Your task to perform on an android device: turn off data saver in the chrome app Image 0: 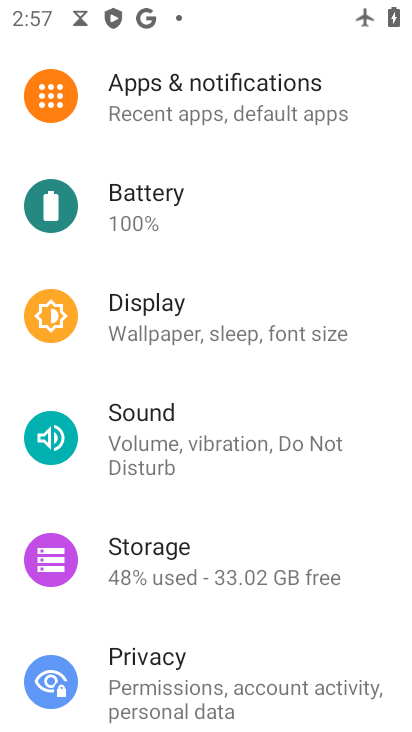
Step 0: press home button
Your task to perform on an android device: turn off data saver in the chrome app Image 1: 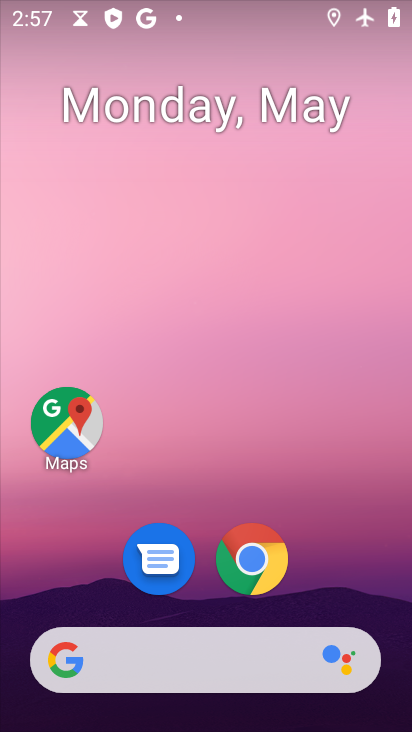
Step 1: click (247, 569)
Your task to perform on an android device: turn off data saver in the chrome app Image 2: 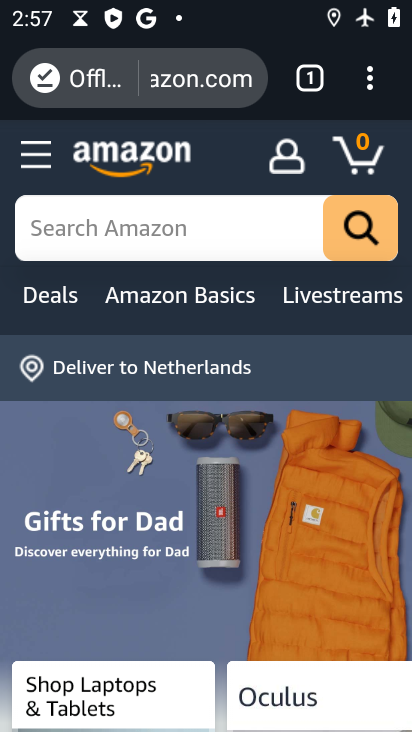
Step 2: click (382, 71)
Your task to perform on an android device: turn off data saver in the chrome app Image 3: 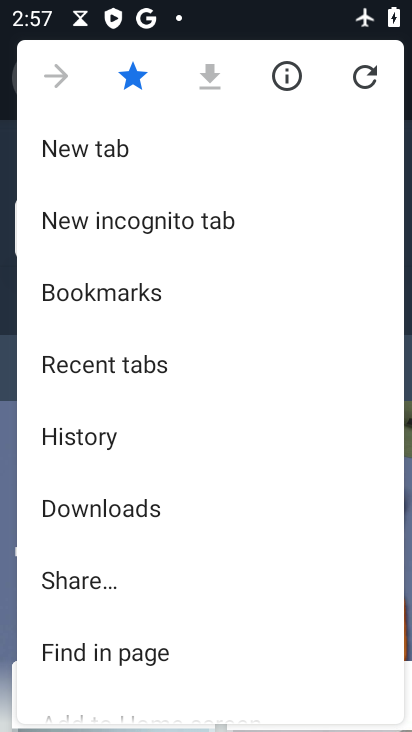
Step 3: drag from (185, 617) to (211, 172)
Your task to perform on an android device: turn off data saver in the chrome app Image 4: 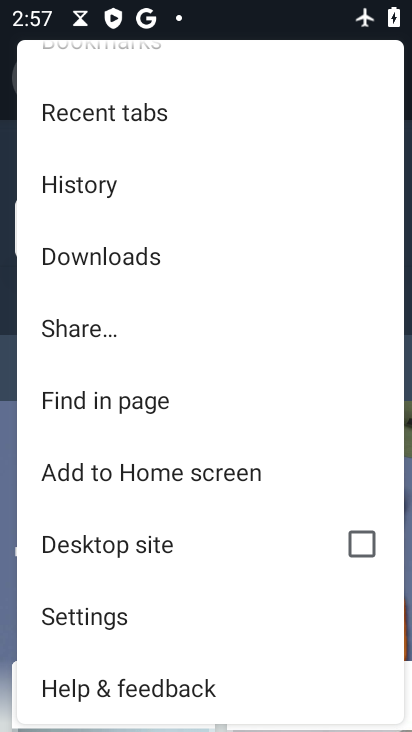
Step 4: click (116, 611)
Your task to perform on an android device: turn off data saver in the chrome app Image 5: 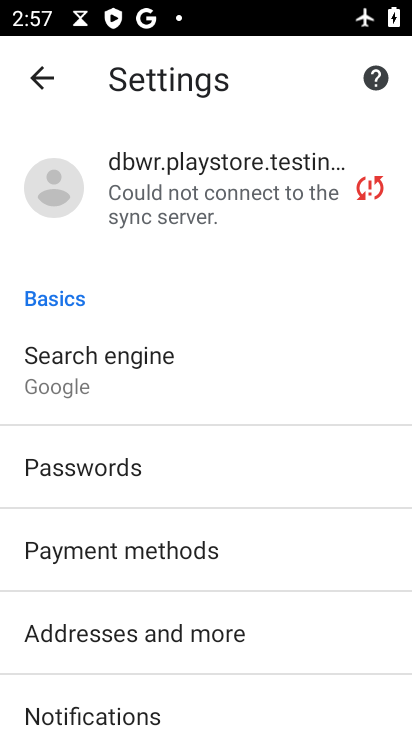
Step 5: drag from (166, 647) to (214, 195)
Your task to perform on an android device: turn off data saver in the chrome app Image 6: 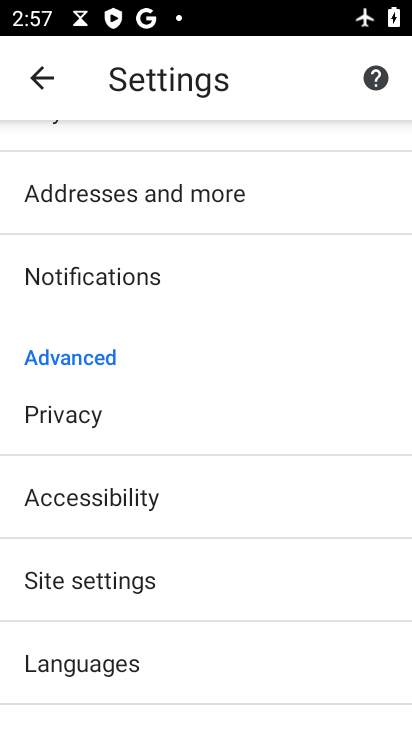
Step 6: drag from (118, 666) to (97, 303)
Your task to perform on an android device: turn off data saver in the chrome app Image 7: 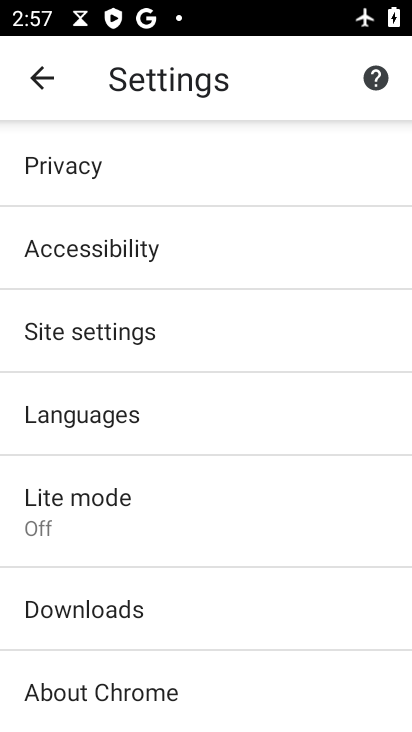
Step 7: click (198, 493)
Your task to perform on an android device: turn off data saver in the chrome app Image 8: 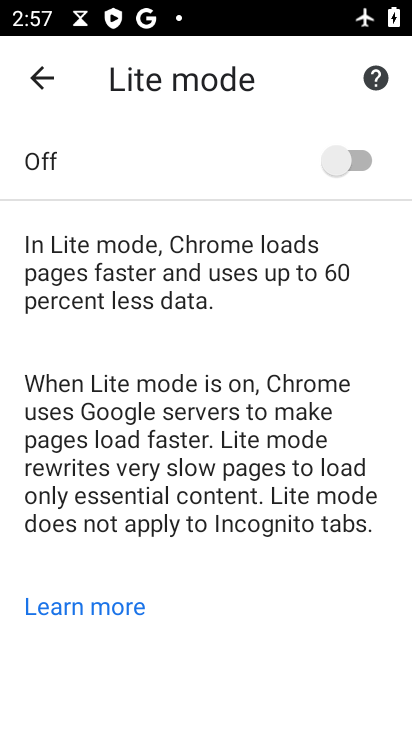
Step 8: task complete